Your task to perform on an android device: change notifications settings Image 0: 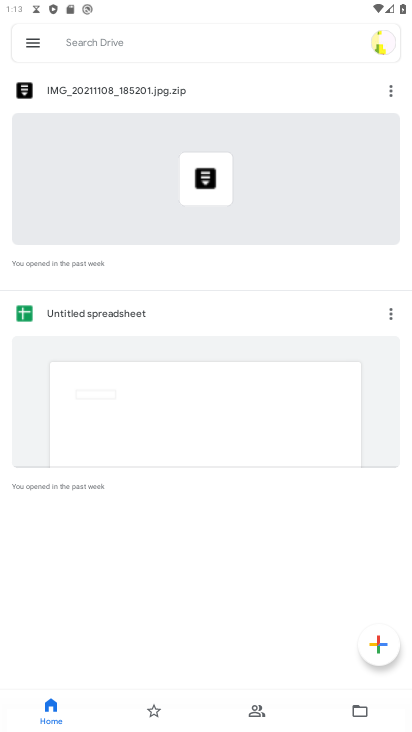
Step 0: press home button
Your task to perform on an android device: change notifications settings Image 1: 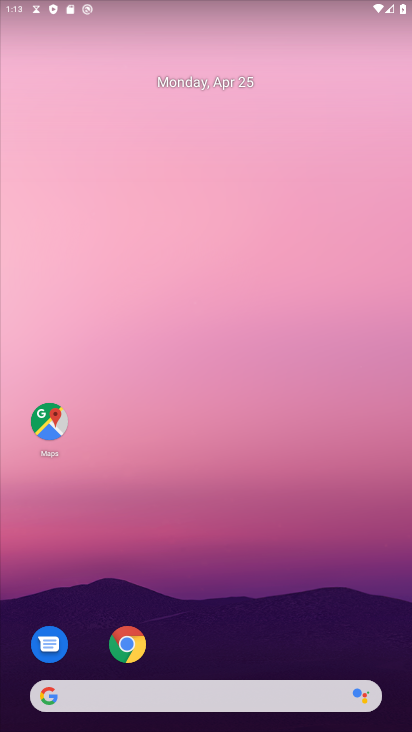
Step 1: drag from (338, 574) to (302, 0)
Your task to perform on an android device: change notifications settings Image 2: 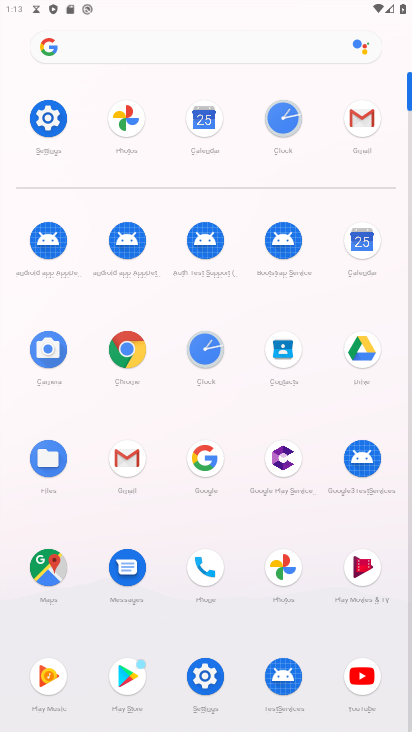
Step 2: click (38, 122)
Your task to perform on an android device: change notifications settings Image 3: 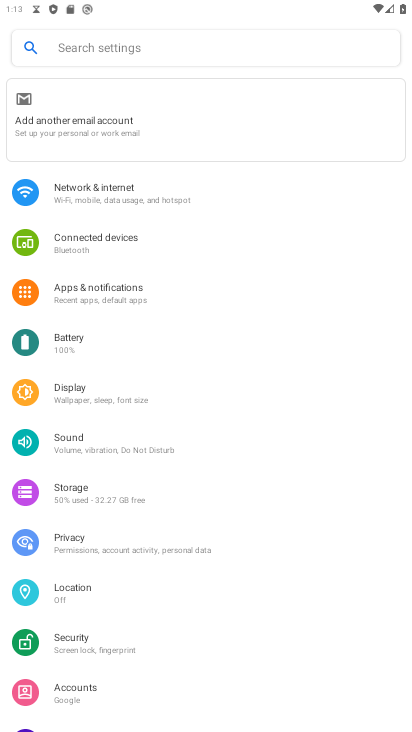
Step 3: click (155, 303)
Your task to perform on an android device: change notifications settings Image 4: 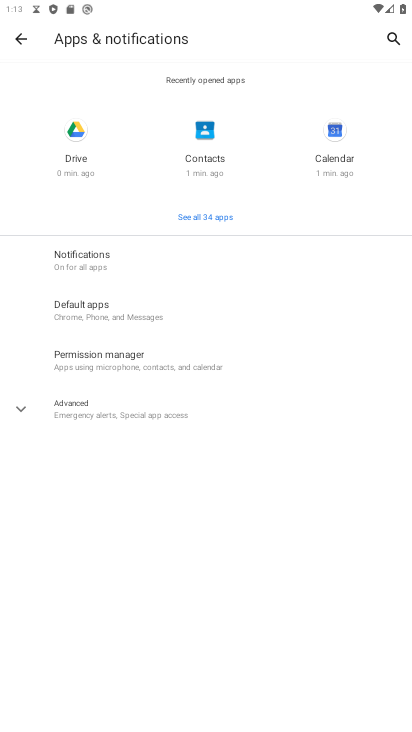
Step 4: click (85, 308)
Your task to perform on an android device: change notifications settings Image 5: 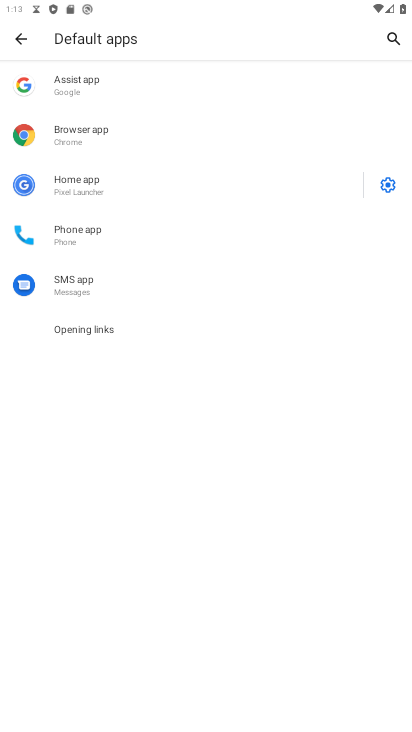
Step 5: click (22, 37)
Your task to perform on an android device: change notifications settings Image 6: 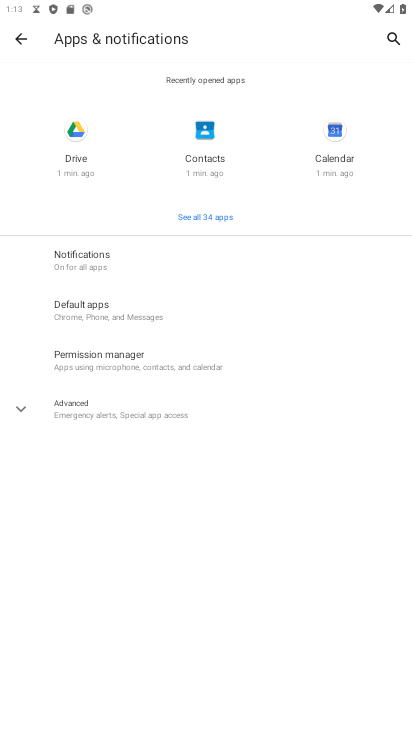
Step 6: click (87, 257)
Your task to perform on an android device: change notifications settings Image 7: 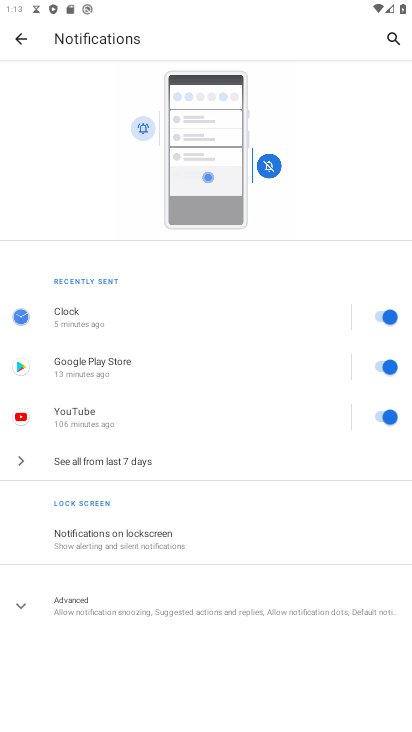
Step 7: drag from (154, 495) to (173, 316)
Your task to perform on an android device: change notifications settings Image 8: 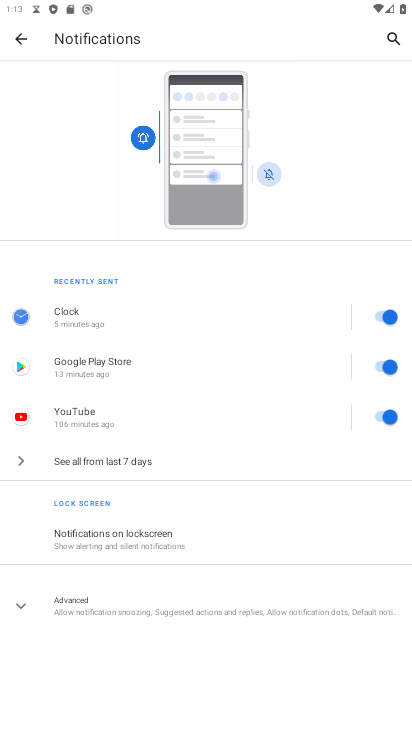
Step 8: click (102, 462)
Your task to perform on an android device: change notifications settings Image 9: 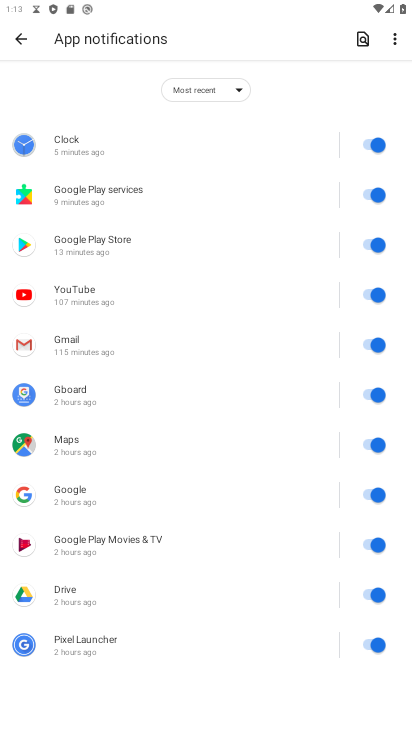
Step 9: click (242, 86)
Your task to perform on an android device: change notifications settings Image 10: 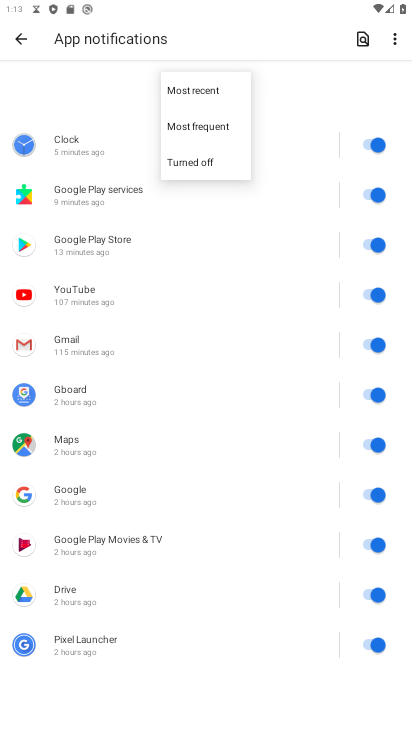
Step 10: click (191, 163)
Your task to perform on an android device: change notifications settings Image 11: 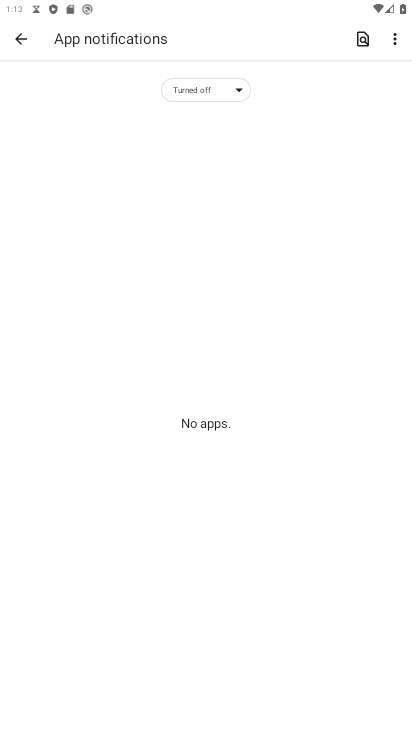
Step 11: task complete